Your task to perform on an android device: change the clock display to analog Image 0: 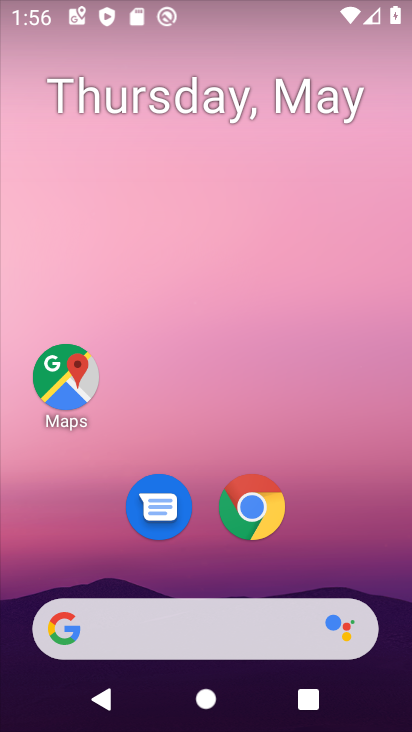
Step 0: drag from (321, 616) to (285, 61)
Your task to perform on an android device: change the clock display to analog Image 1: 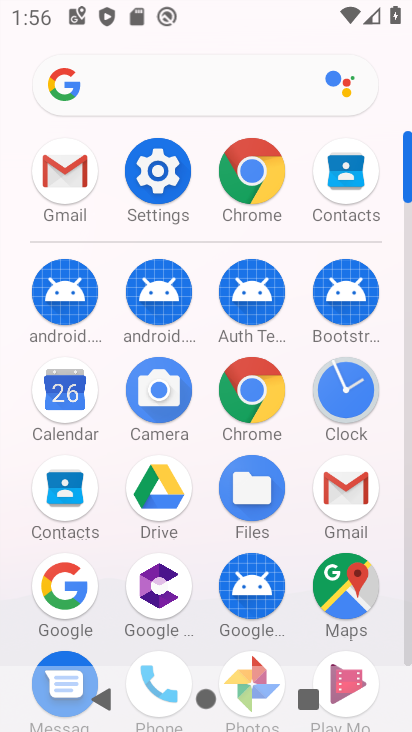
Step 1: click (336, 399)
Your task to perform on an android device: change the clock display to analog Image 2: 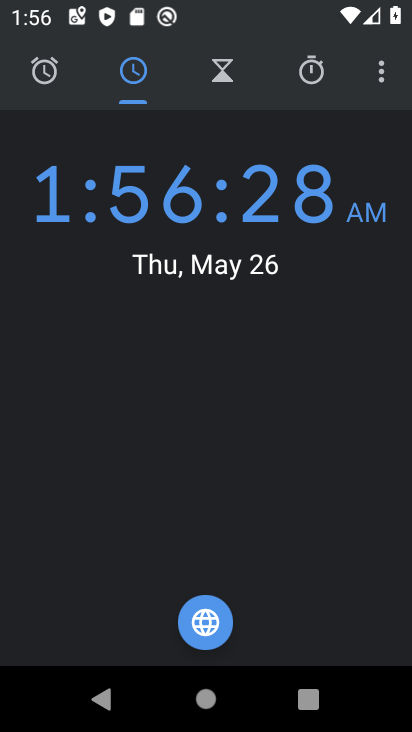
Step 2: click (389, 71)
Your task to perform on an android device: change the clock display to analog Image 3: 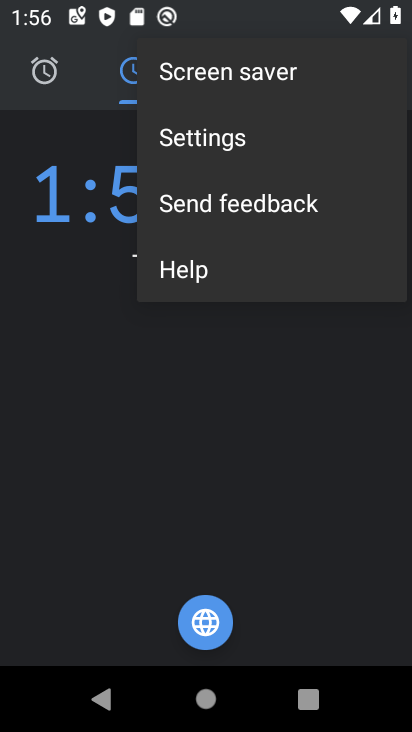
Step 3: click (283, 146)
Your task to perform on an android device: change the clock display to analog Image 4: 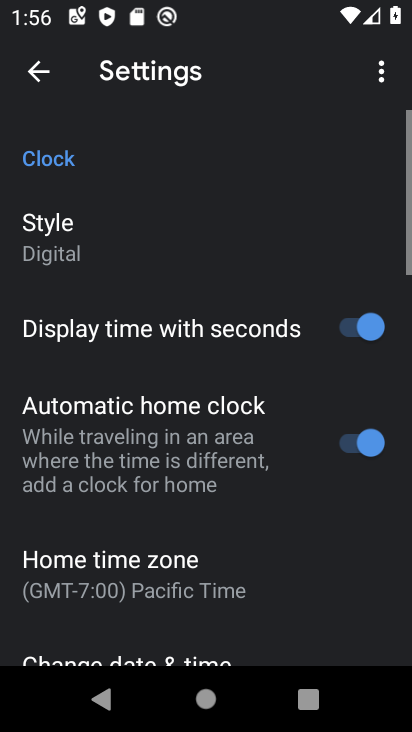
Step 4: click (250, 268)
Your task to perform on an android device: change the clock display to analog Image 5: 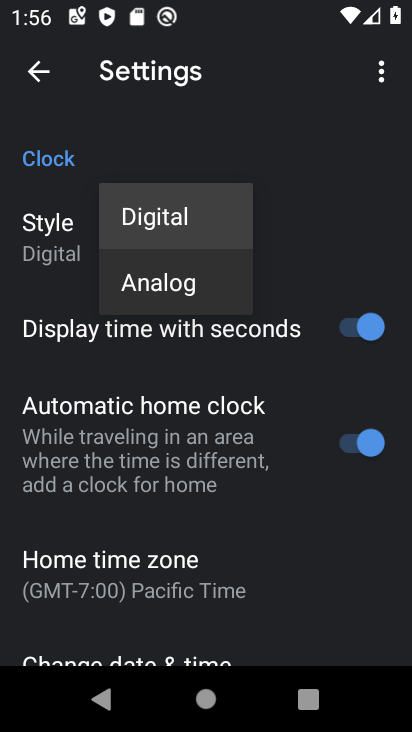
Step 5: click (218, 291)
Your task to perform on an android device: change the clock display to analog Image 6: 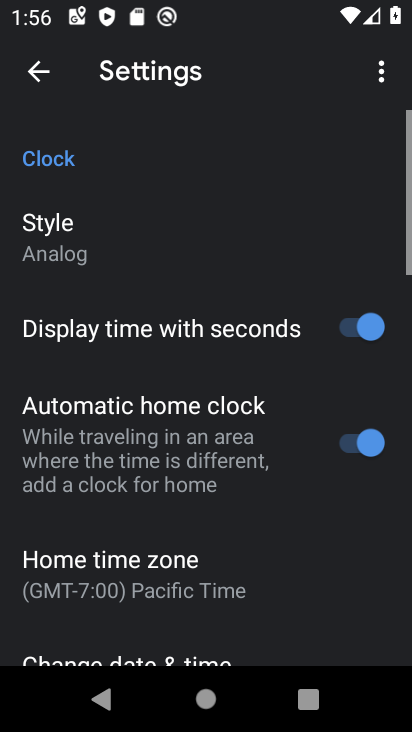
Step 6: task complete